Your task to perform on an android device: turn off translation in the chrome app Image 0: 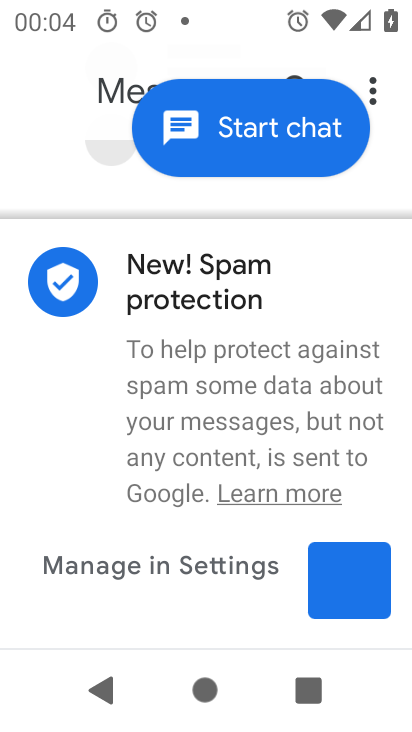
Step 0: press home button
Your task to perform on an android device: turn off translation in the chrome app Image 1: 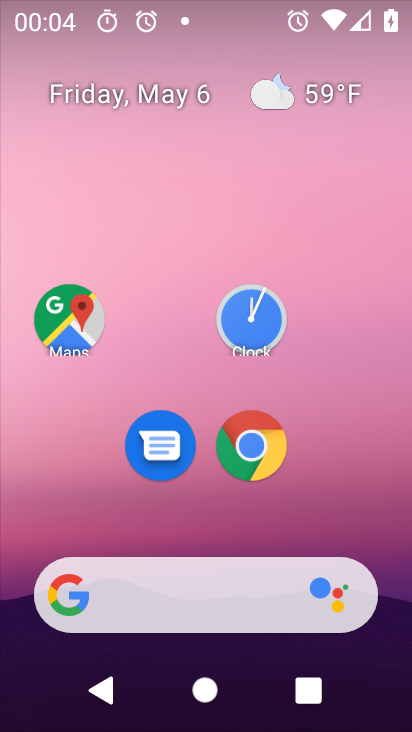
Step 1: click (247, 468)
Your task to perform on an android device: turn off translation in the chrome app Image 2: 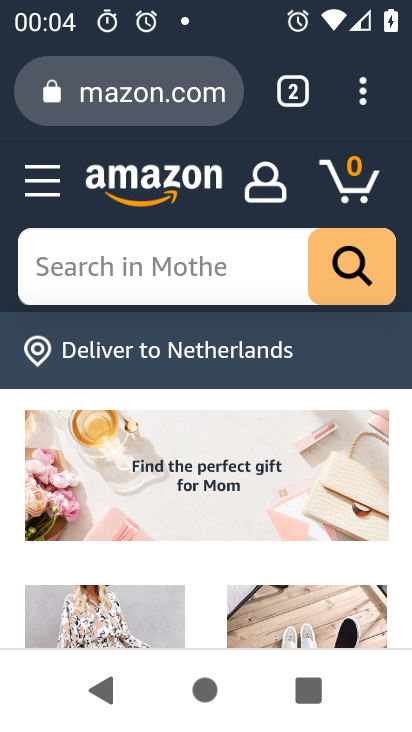
Step 2: drag from (374, 90) to (133, 487)
Your task to perform on an android device: turn off translation in the chrome app Image 3: 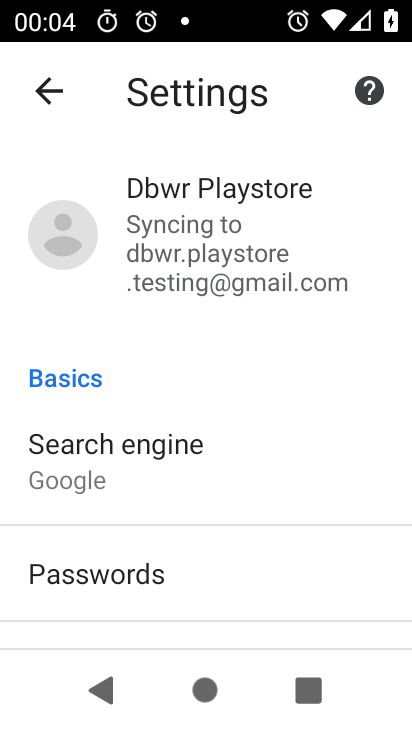
Step 3: drag from (169, 517) to (166, 71)
Your task to perform on an android device: turn off translation in the chrome app Image 4: 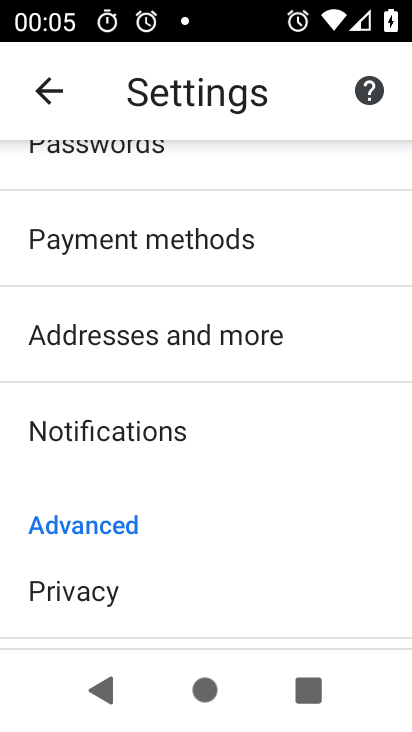
Step 4: drag from (169, 556) to (151, 111)
Your task to perform on an android device: turn off translation in the chrome app Image 5: 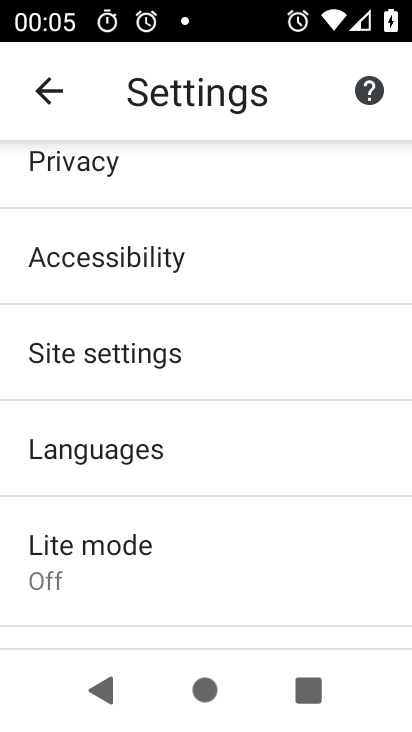
Step 5: click (159, 471)
Your task to perform on an android device: turn off translation in the chrome app Image 6: 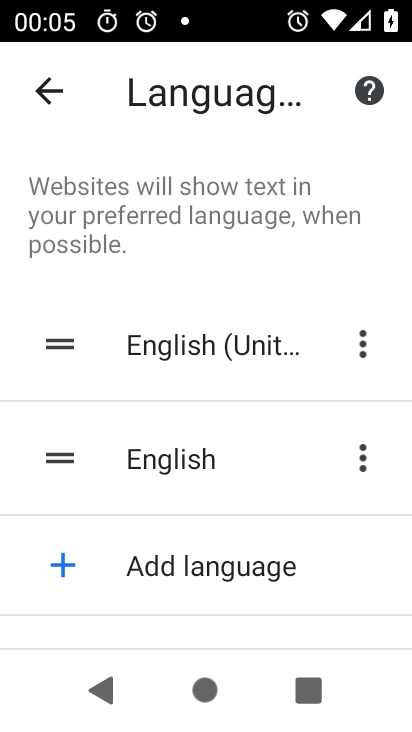
Step 6: task complete